Your task to perform on an android device: Open Google Chrome Image 0: 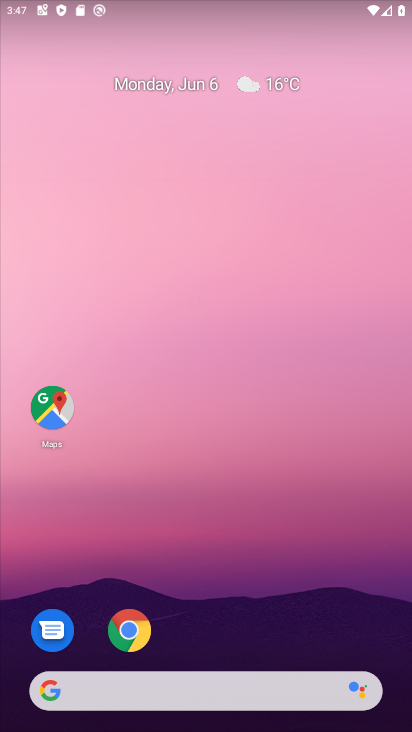
Step 0: click (118, 624)
Your task to perform on an android device: Open Google Chrome Image 1: 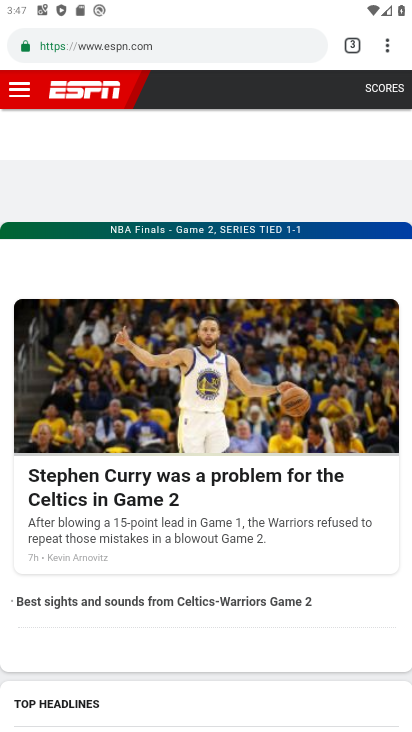
Step 1: task complete